Your task to perform on an android device: Open calendar and show me the first week of next month Image 0: 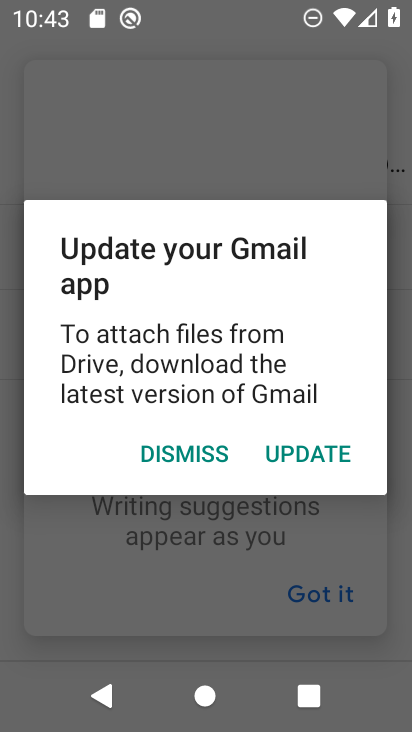
Step 0: press home button
Your task to perform on an android device: Open calendar and show me the first week of next month Image 1: 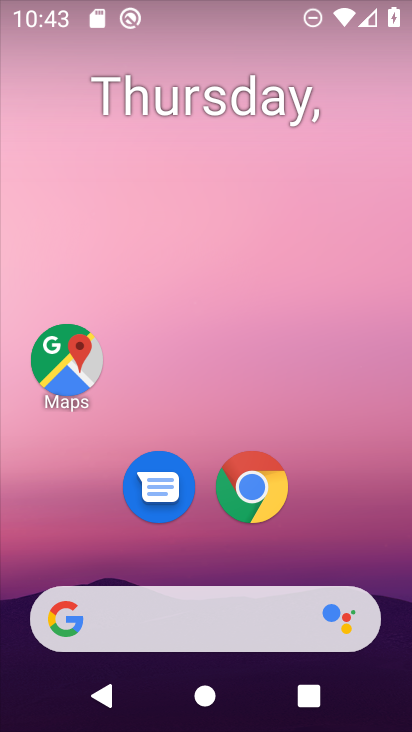
Step 1: drag from (333, 528) to (216, 60)
Your task to perform on an android device: Open calendar and show me the first week of next month Image 2: 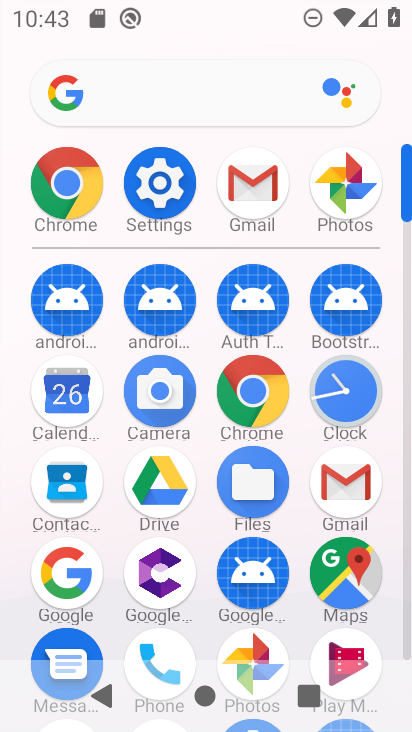
Step 2: click (91, 400)
Your task to perform on an android device: Open calendar and show me the first week of next month Image 3: 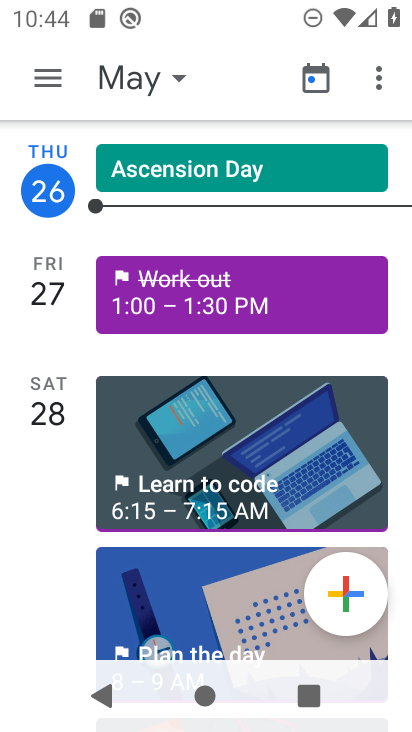
Step 3: click (124, 73)
Your task to perform on an android device: Open calendar and show me the first week of next month Image 4: 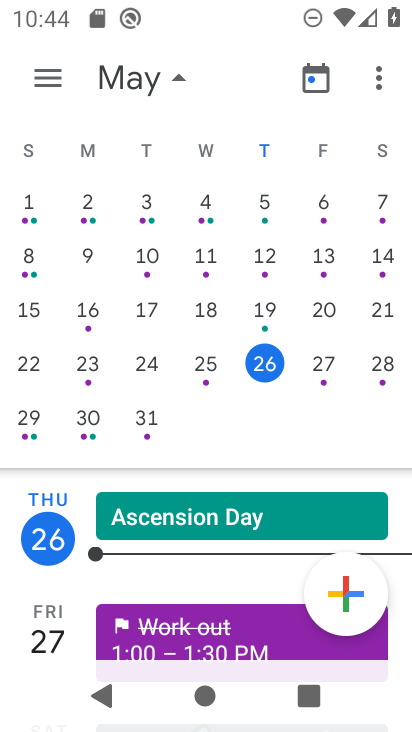
Step 4: drag from (270, 279) to (0, 268)
Your task to perform on an android device: Open calendar and show me the first week of next month Image 5: 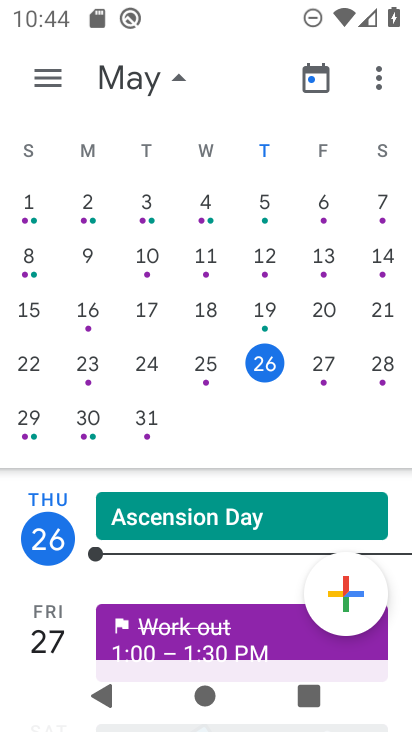
Step 5: drag from (322, 305) to (16, 137)
Your task to perform on an android device: Open calendar and show me the first week of next month Image 6: 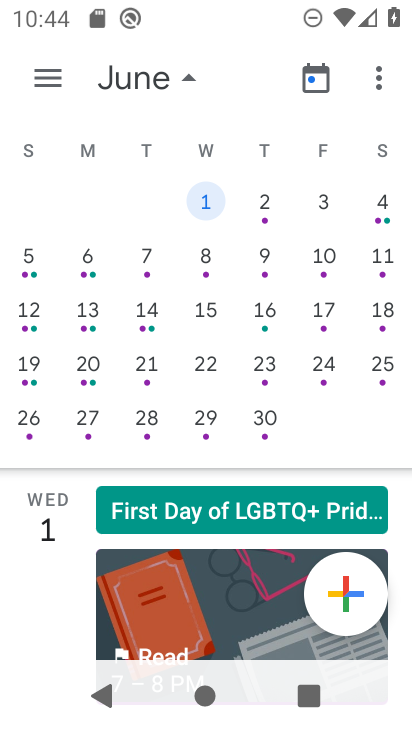
Step 6: click (52, 77)
Your task to perform on an android device: Open calendar and show me the first week of next month Image 7: 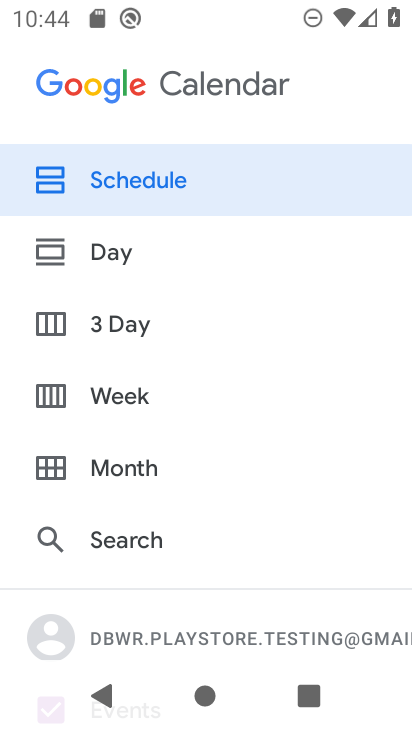
Step 7: click (95, 395)
Your task to perform on an android device: Open calendar and show me the first week of next month Image 8: 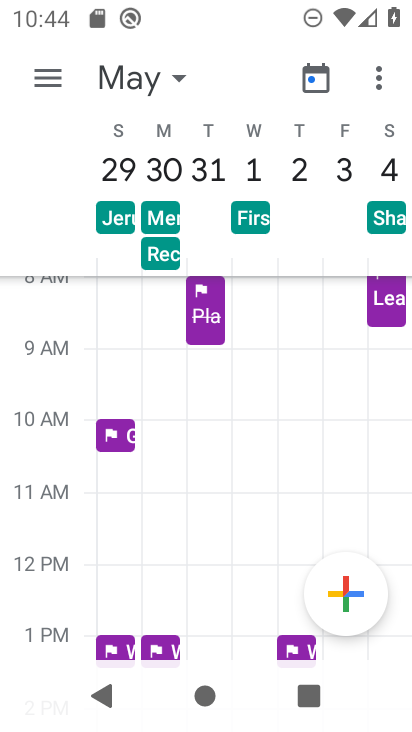
Step 8: task complete